Your task to perform on an android device: manage bookmarks in the chrome app Image 0: 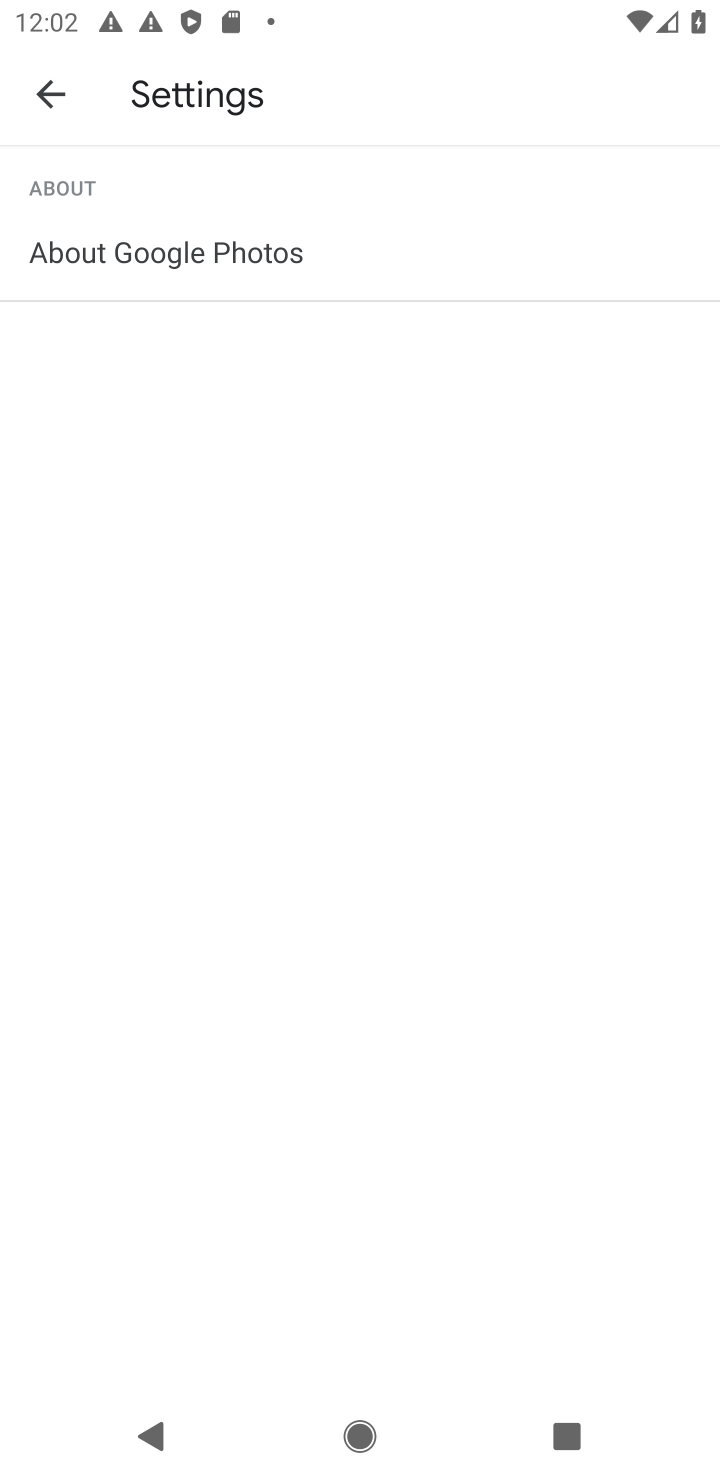
Step 0: press home button
Your task to perform on an android device: manage bookmarks in the chrome app Image 1: 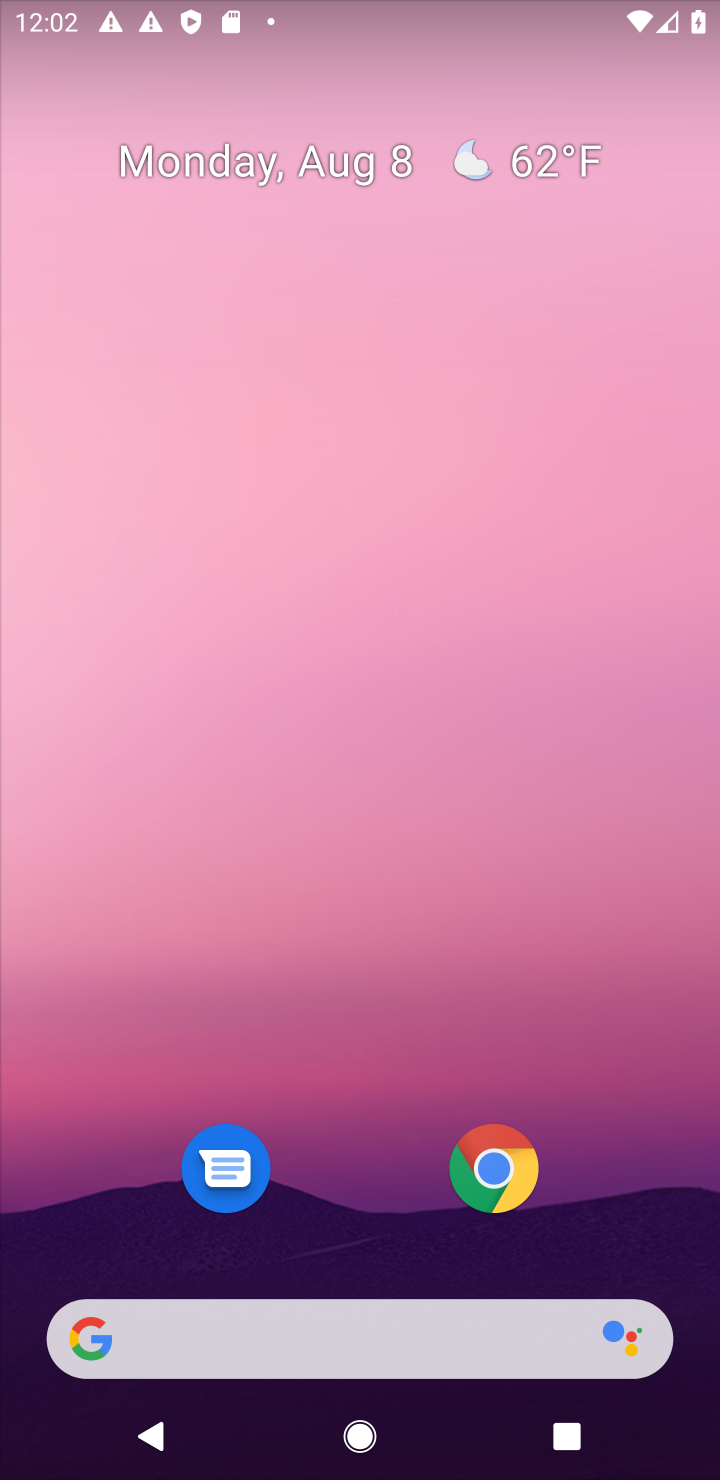
Step 1: click (534, 1190)
Your task to perform on an android device: manage bookmarks in the chrome app Image 2: 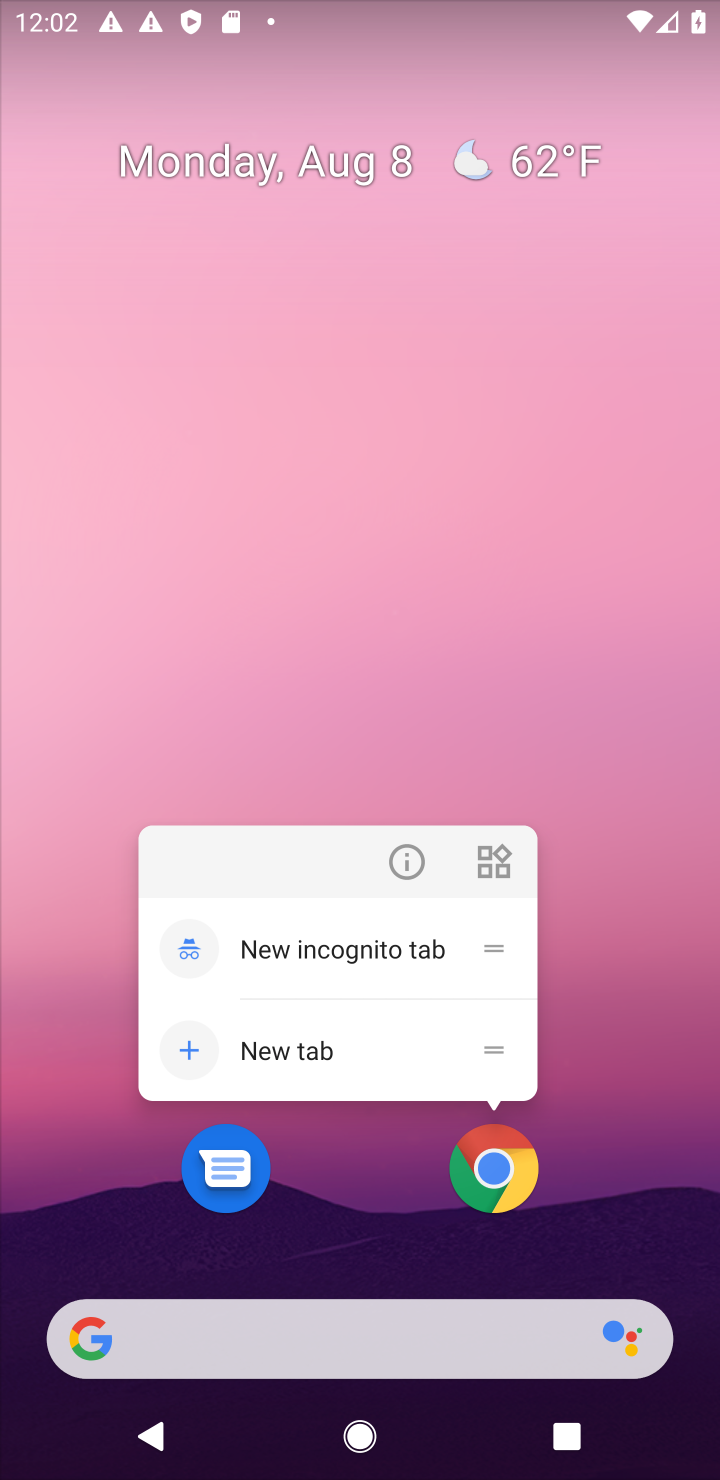
Step 2: click (457, 1159)
Your task to perform on an android device: manage bookmarks in the chrome app Image 3: 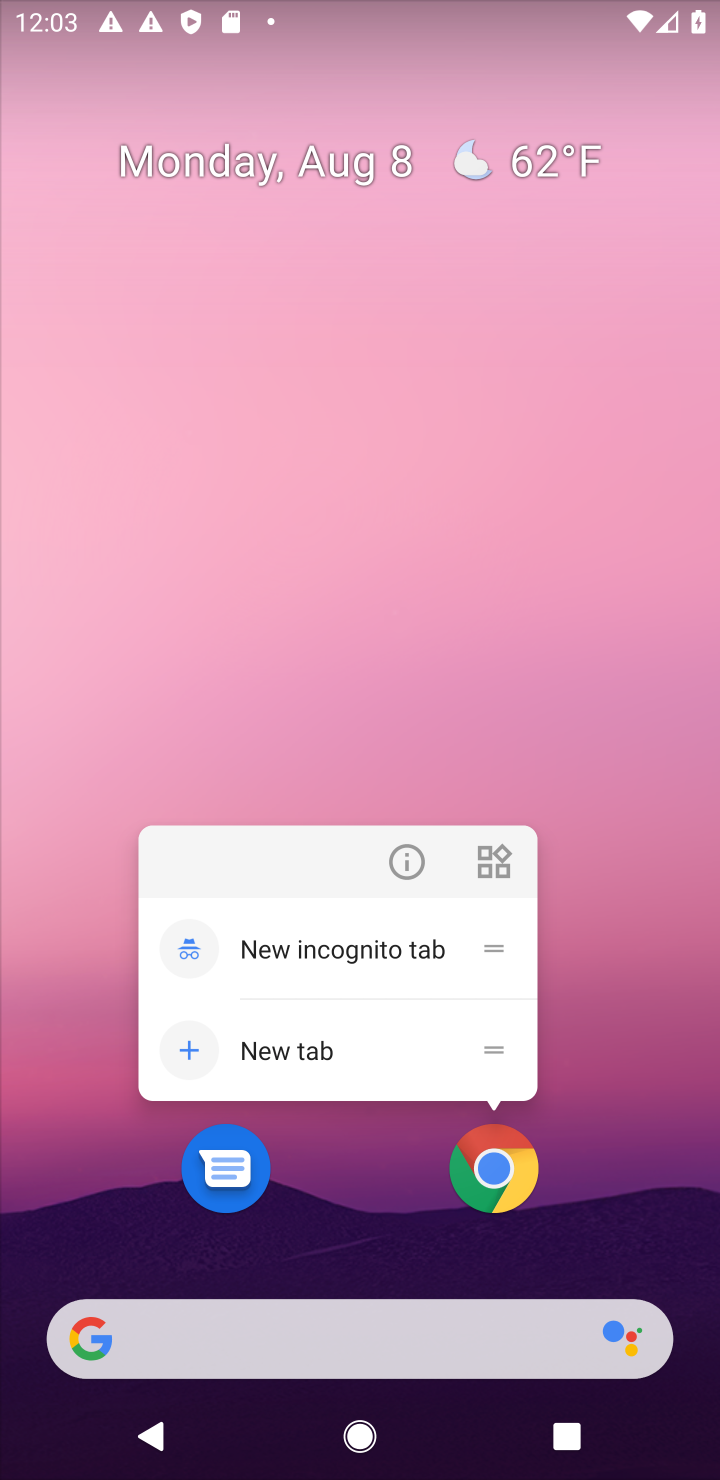
Step 3: click (487, 1162)
Your task to perform on an android device: manage bookmarks in the chrome app Image 4: 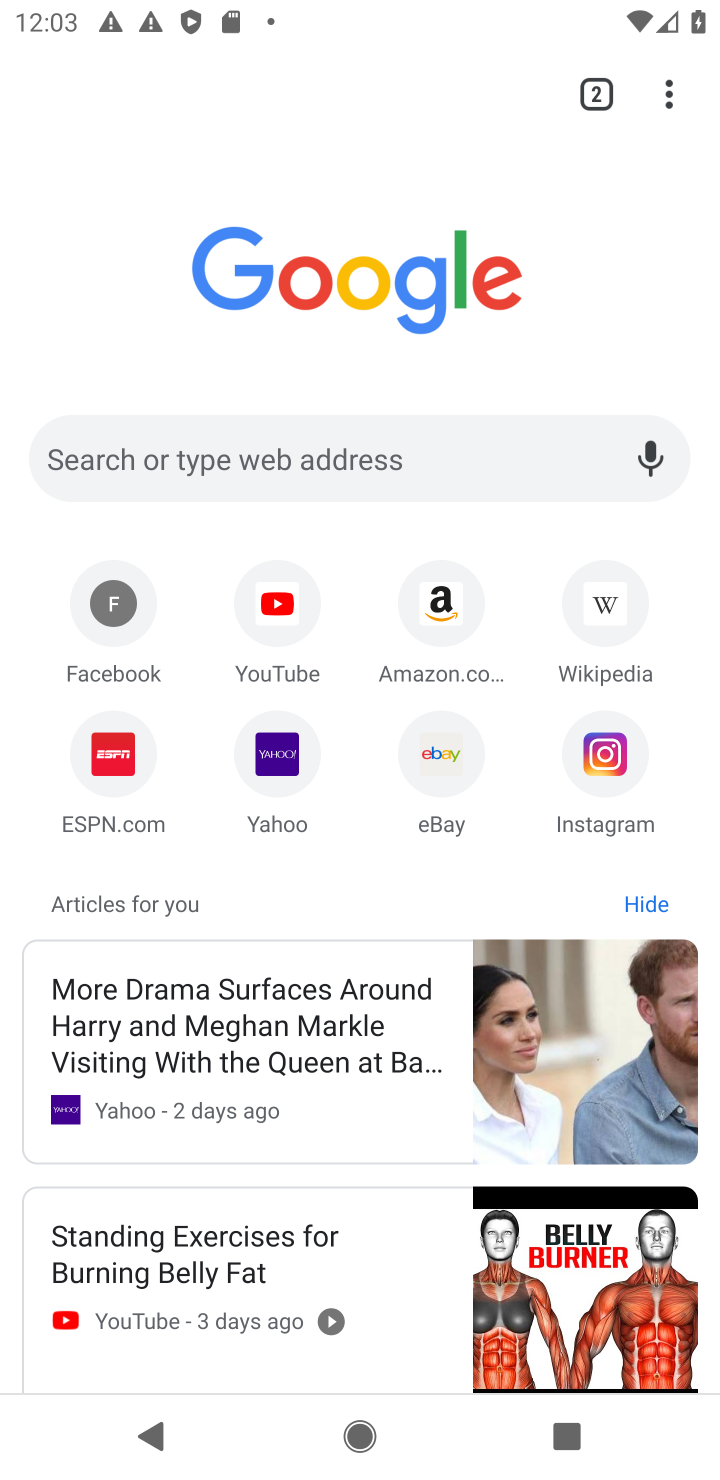
Step 4: click (686, 104)
Your task to perform on an android device: manage bookmarks in the chrome app Image 5: 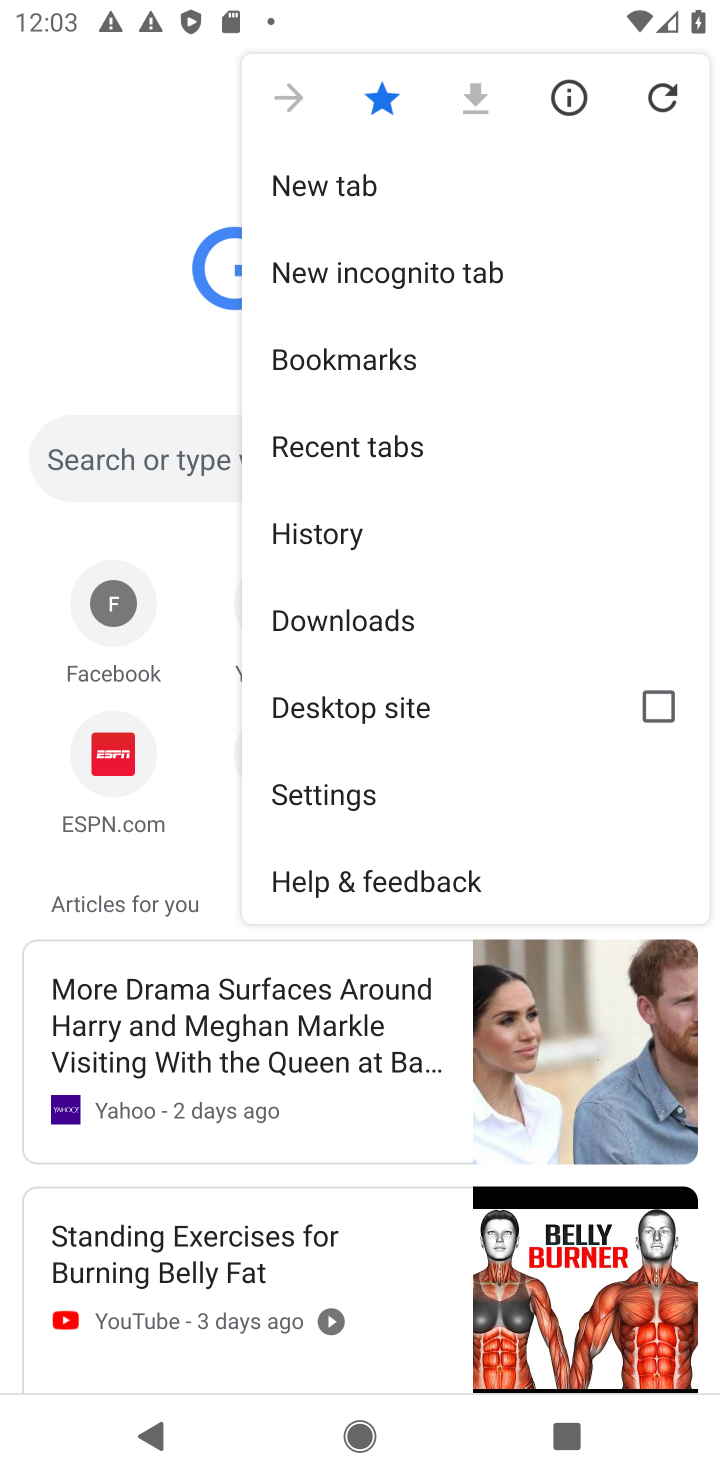
Step 5: click (360, 379)
Your task to perform on an android device: manage bookmarks in the chrome app Image 6: 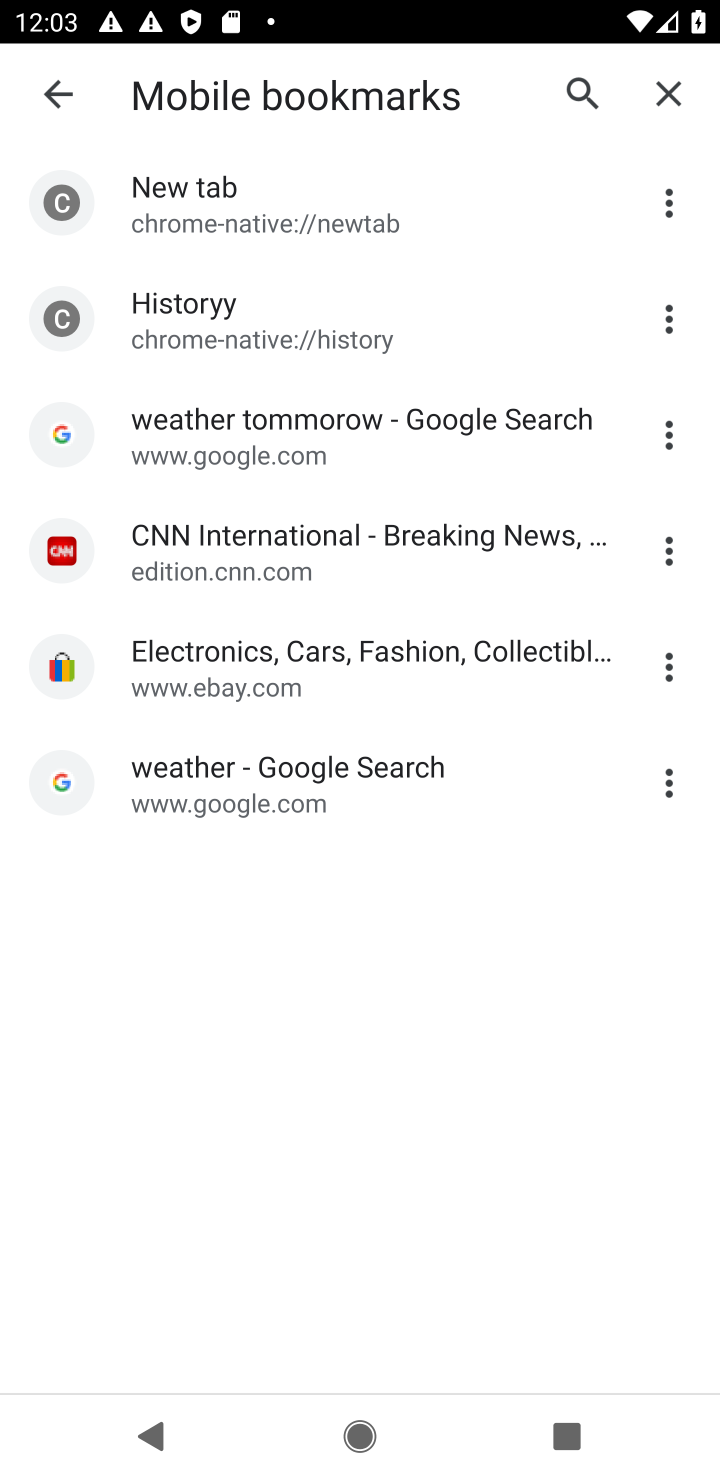
Step 6: task complete